Your task to perform on an android device: toggle translation in the chrome app Image 0: 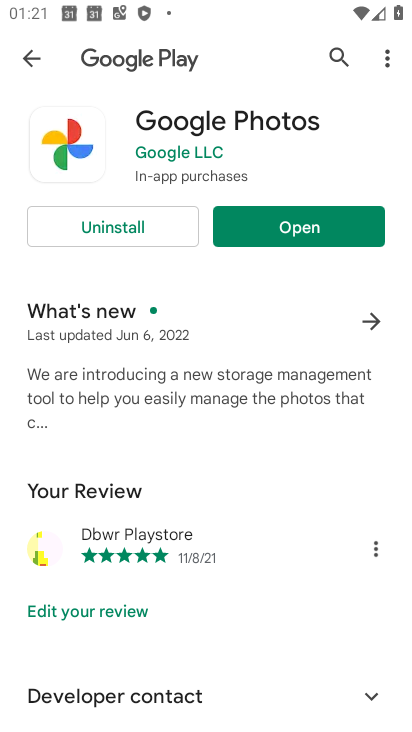
Step 0: press home button
Your task to perform on an android device: toggle translation in the chrome app Image 1: 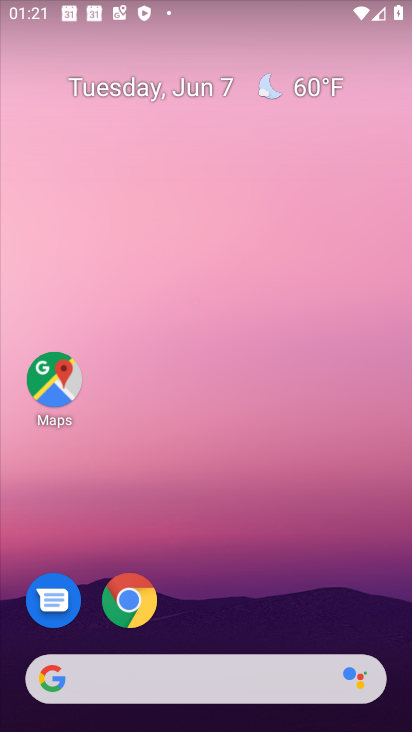
Step 1: click (131, 608)
Your task to perform on an android device: toggle translation in the chrome app Image 2: 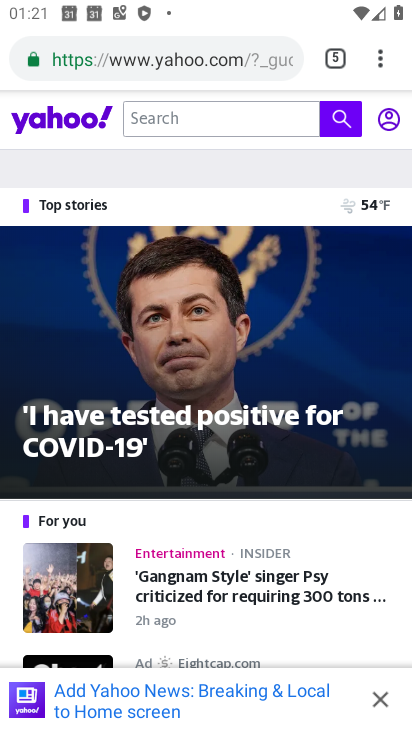
Step 2: click (382, 64)
Your task to perform on an android device: toggle translation in the chrome app Image 3: 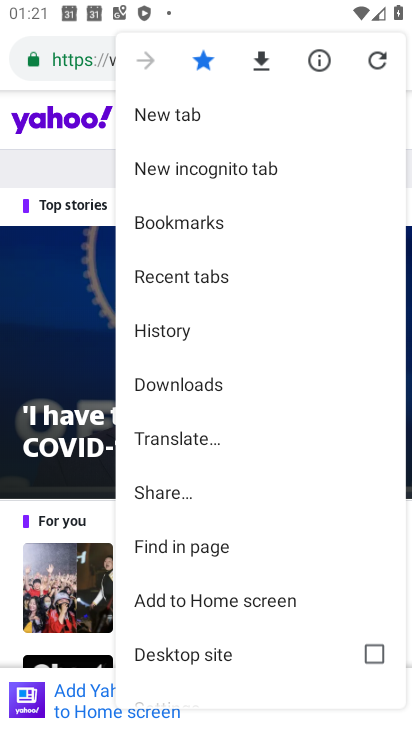
Step 3: drag from (223, 638) to (221, 267)
Your task to perform on an android device: toggle translation in the chrome app Image 4: 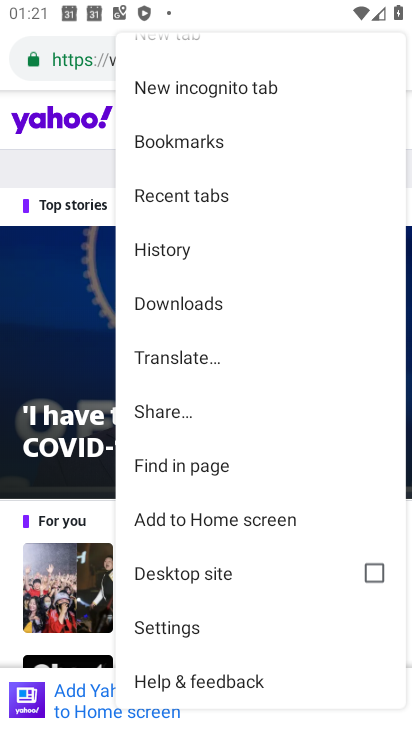
Step 4: click (170, 620)
Your task to perform on an android device: toggle translation in the chrome app Image 5: 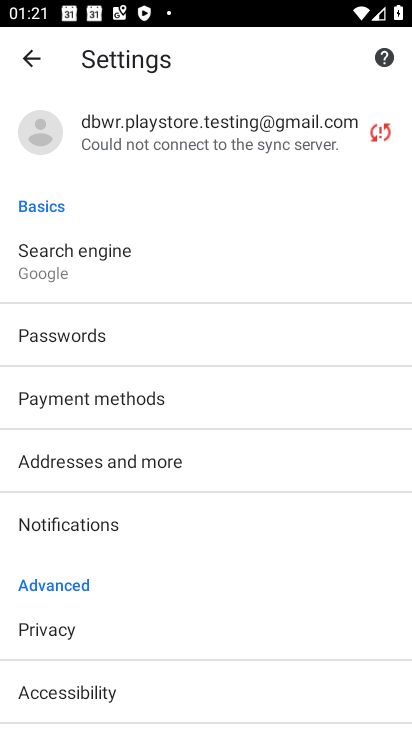
Step 5: drag from (109, 694) to (123, 230)
Your task to perform on an android device: toggle translation in the chrome app Image 6: 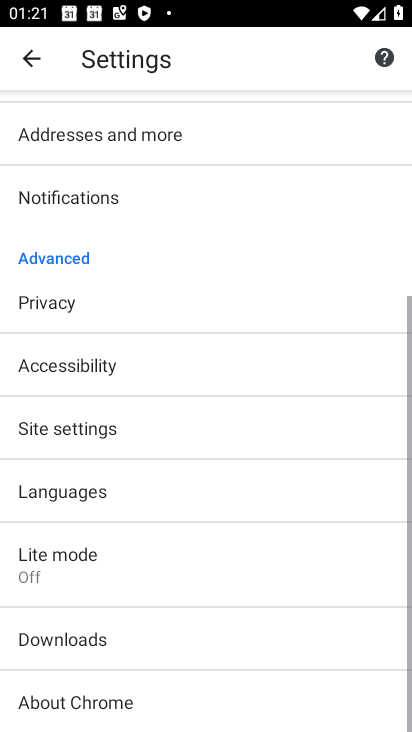
Step 6: click (80, 485)
Your task to perform on an android device: toggle translation in the chrome app Image 7: 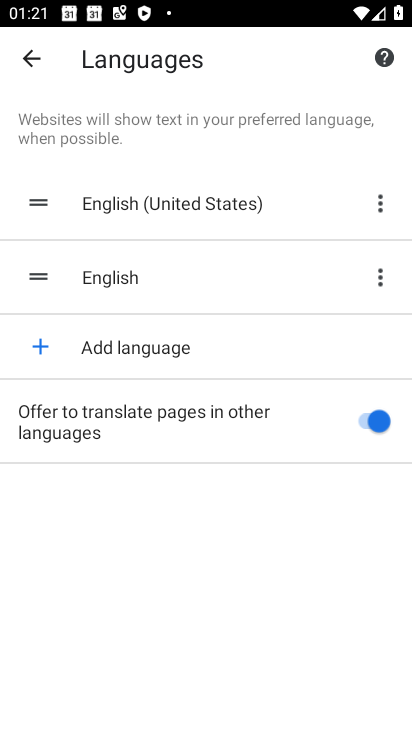
Step 7: click (356, 415)
Your task to perform on an android device: toggle translation in the chrome app Image 8: 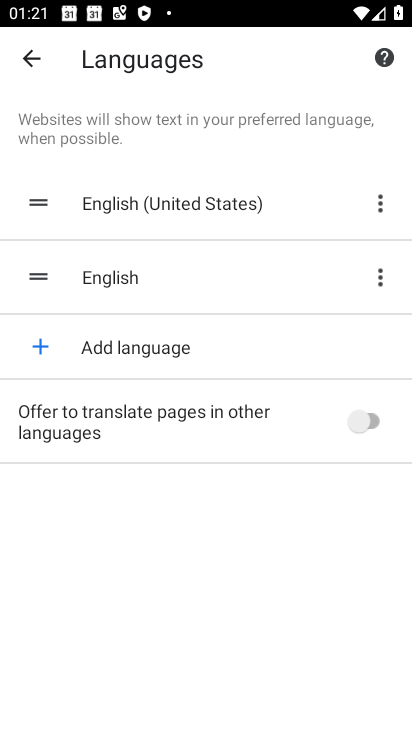
Step 8: task complete